Your task to perform on an android device: open app "Pandora - Music & Podcasts" Image 0: 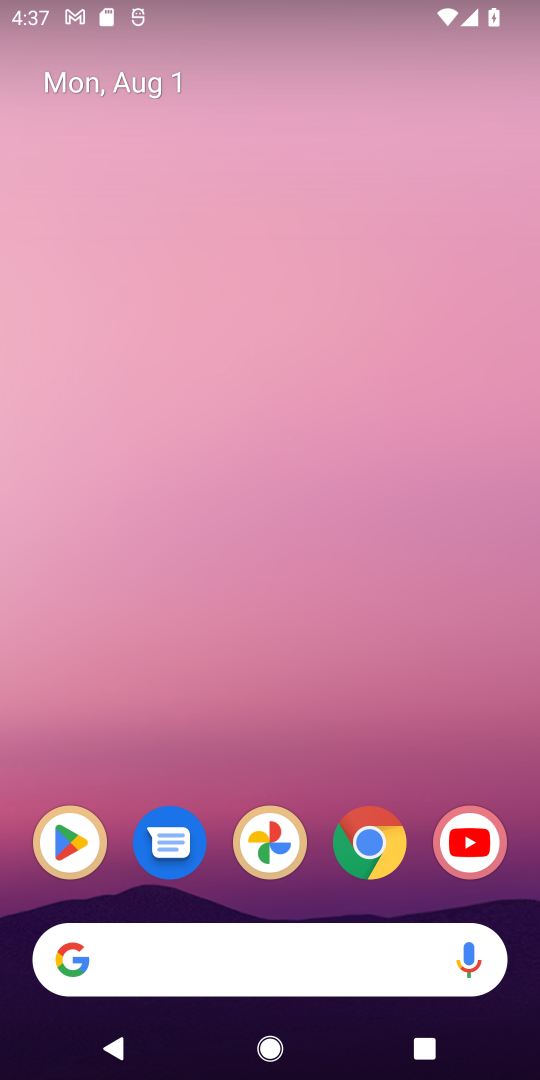
Step 0: drag from (376, 1051) to (220, 255)
Your task to perform on an android device: open app "Pandora - Music & Podcasts" Image 1: 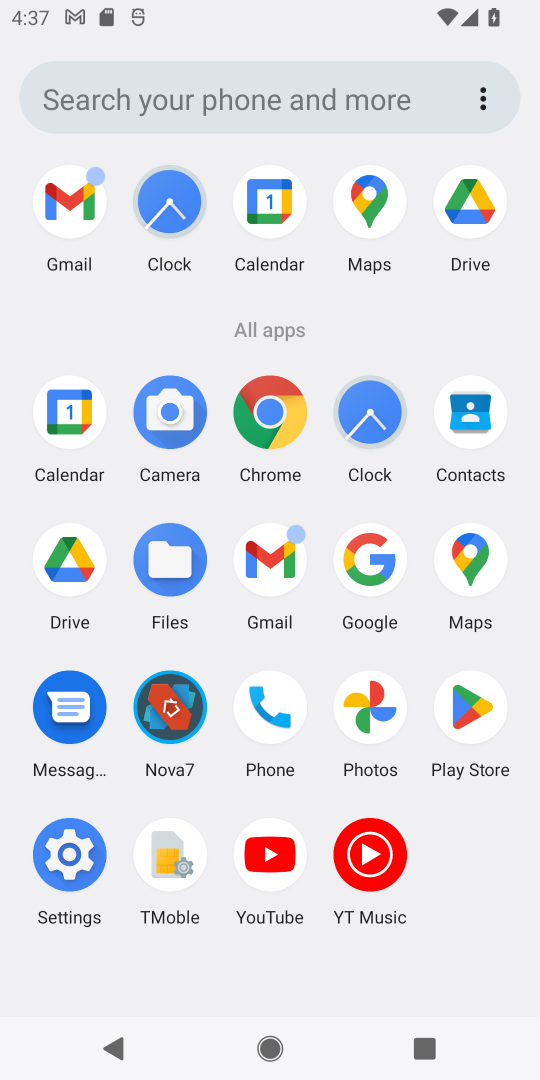
Step 1: click (462, 702)
Your task to perform on an android device: open app "Pandora - Music & Podcasts" Image 2: 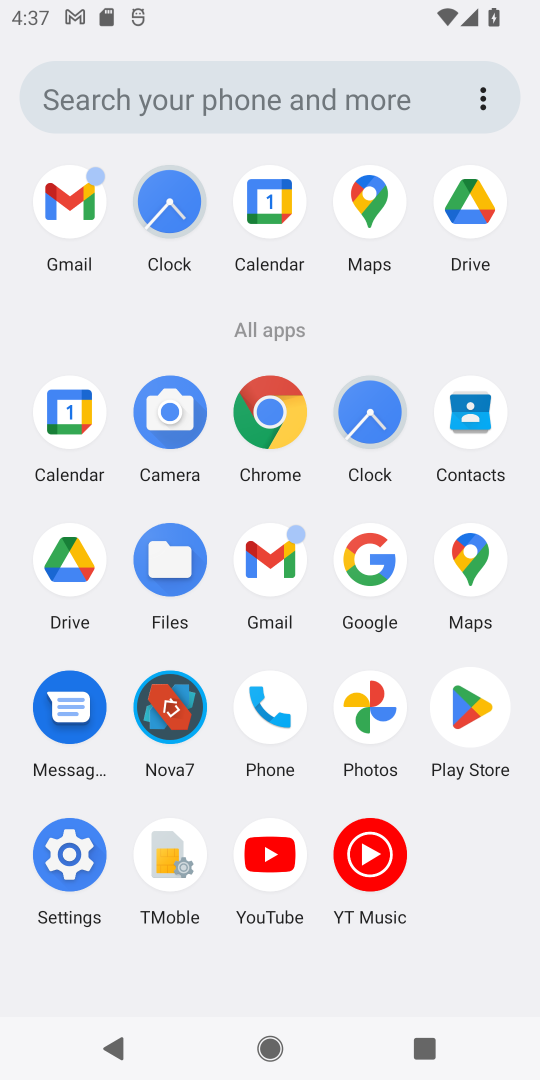
Step 2: click (460, 702)
Your task to perform on an android device: open app "Pandora - Music & Podcasts" Image 3: 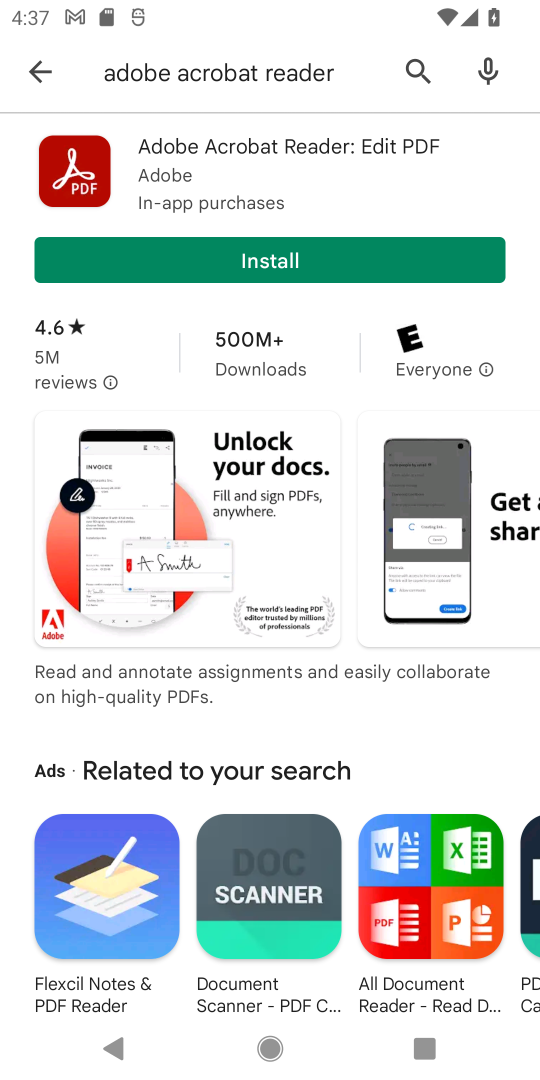
Step 3: click (28, 63)
Your task to perform on an android device: open app "Pandora - Music & Podcasts" Image 4: 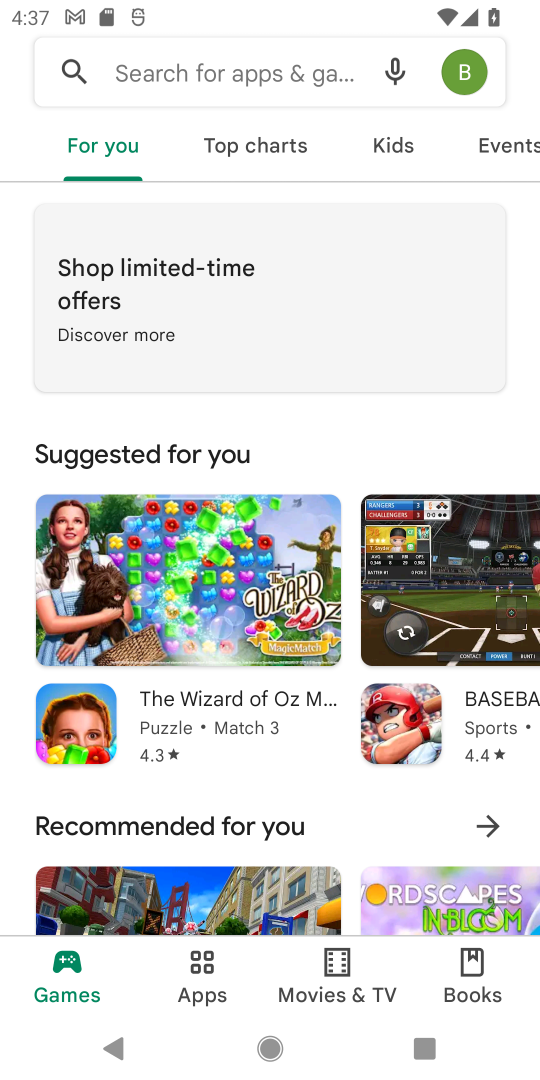
Step 4: click (143, 61)
Your task to perform on an android device: open app "Pandora - Music & Podcasts" Image 5: 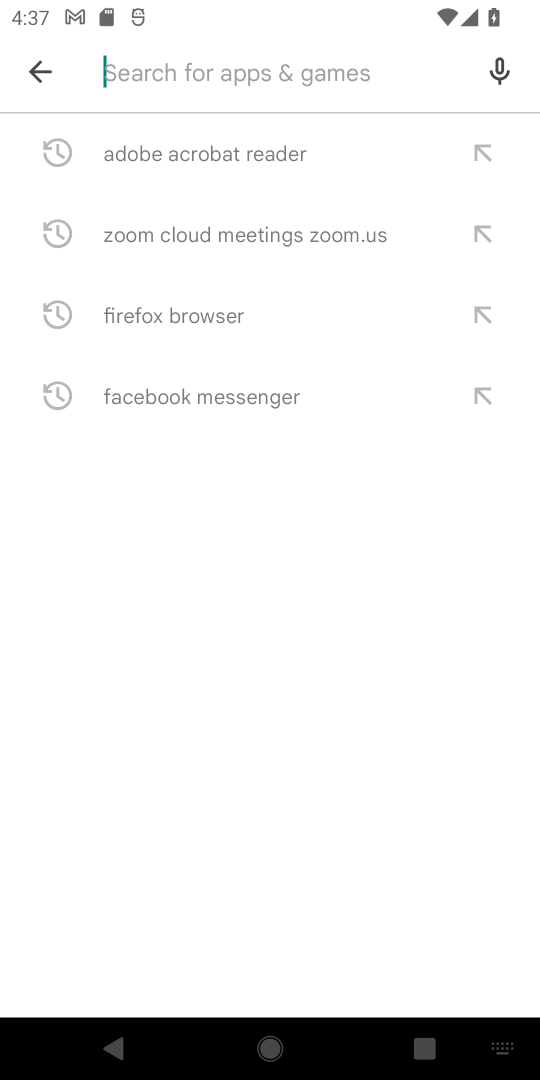
Step 5: click (143, 64)
Your task to perform on an android device: open app "Pandora - Music & Podcasts" Image 6: 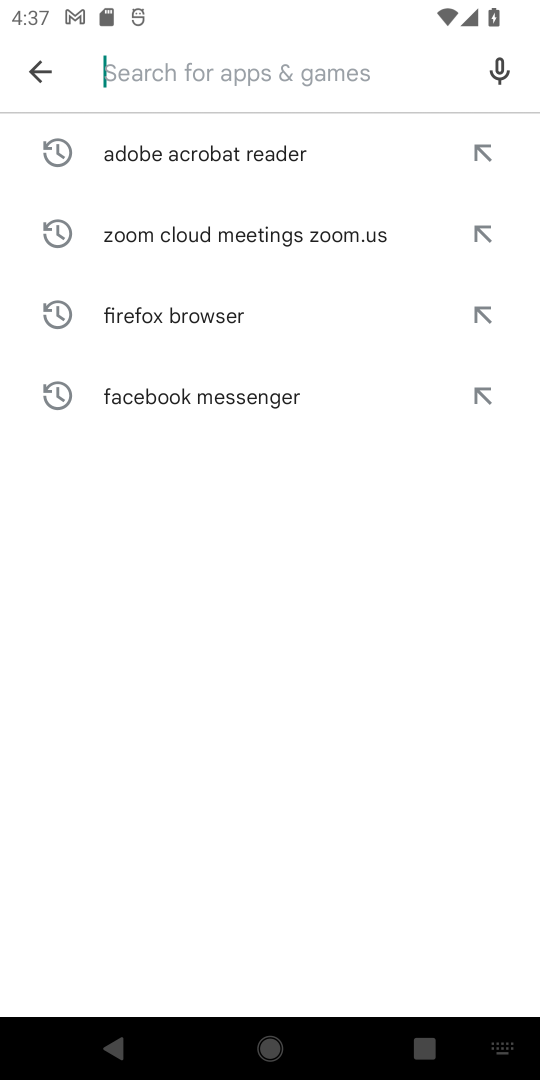
Step 6: type "Pandora- Music &Podcats"
Your task to perform on an android device: open app "Pandora - Music & Podcasts" Image 7: 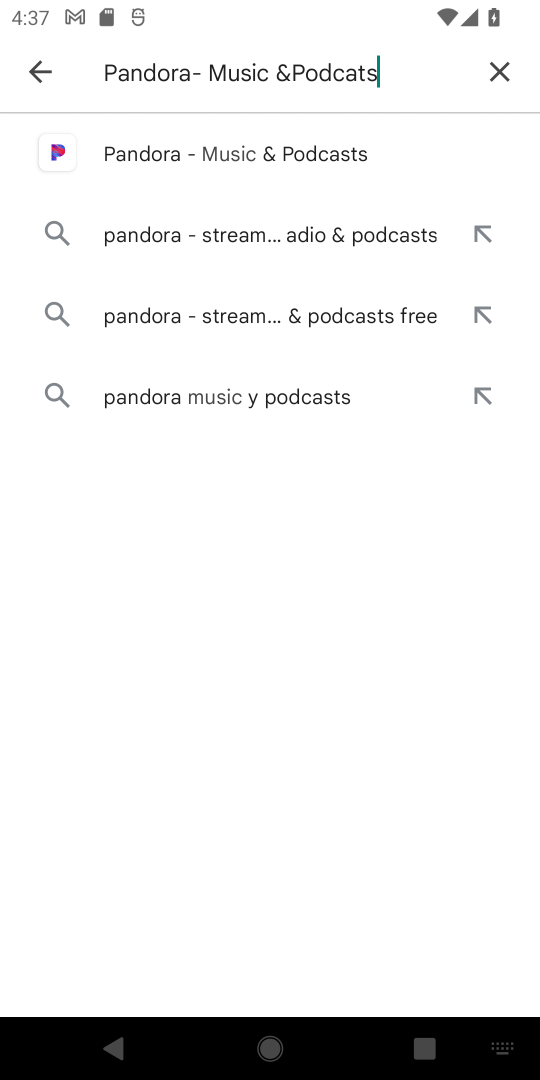
Step 7: click (270, 150)
Your task to perform on an android device: open app "Pandora - Music & Podcasts" Image 8: 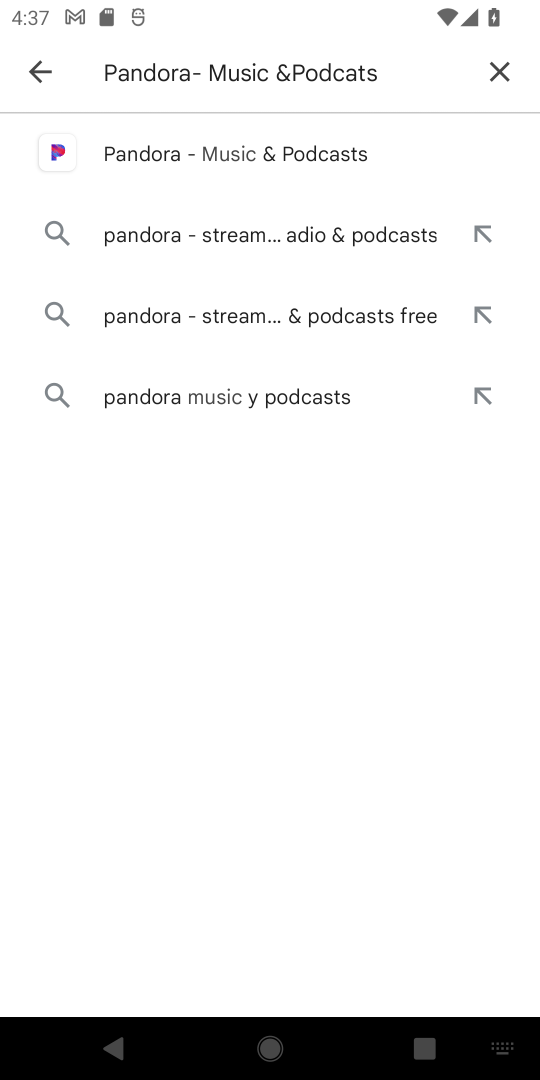
Step 8: click (282, 146)
Your task to perform on an android device: open app "Pandora - Music & Podcasts" Image 9: 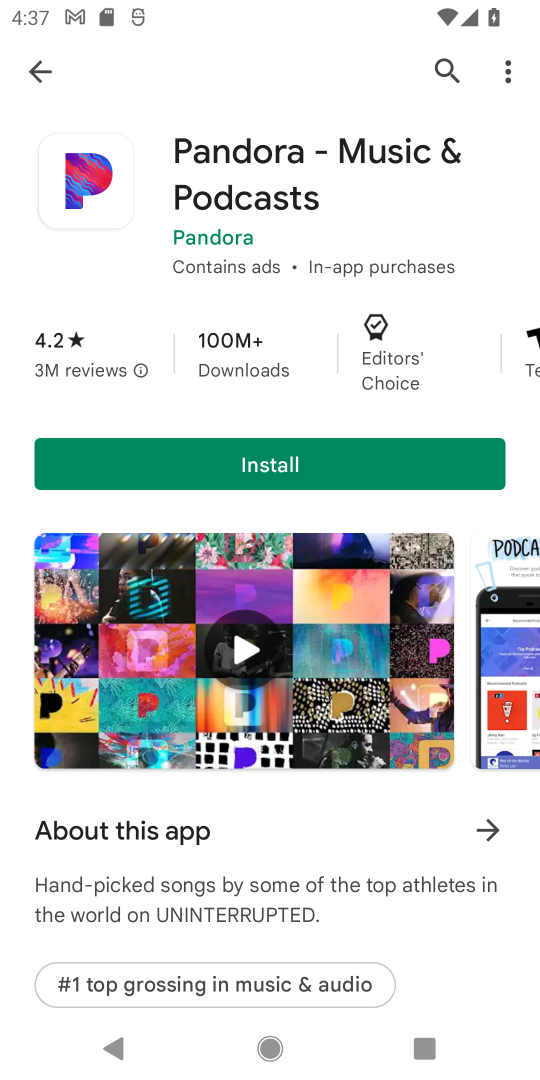
Step 9: click (271, 433)
Your task to perform on an android device: open app "Pandora - Music & Podcasts" Image 10: 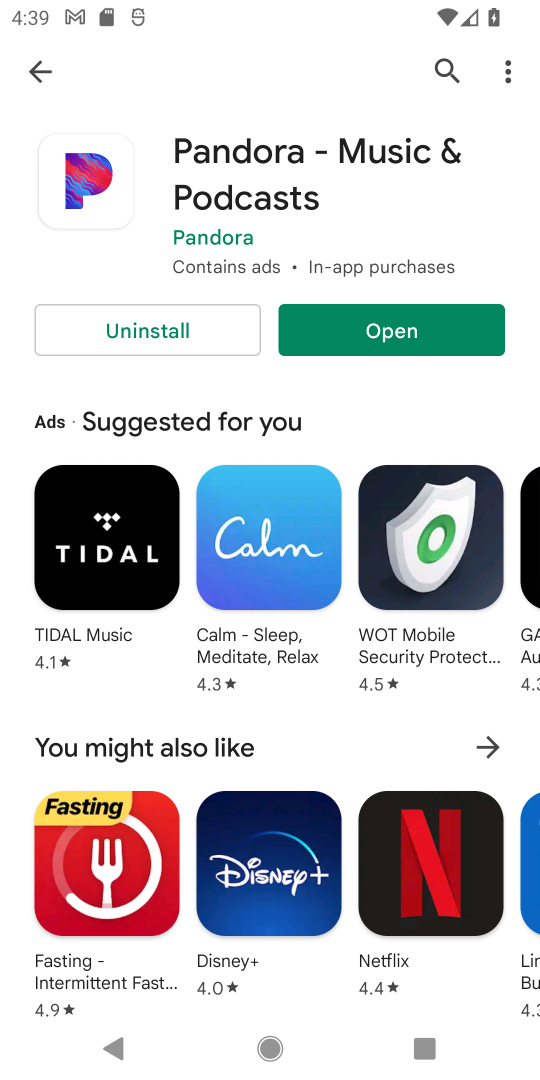
Step 10: click (405, 330)
Your task to perform on an android device: open app "Pandora - Music & Podcasts" Image 11: 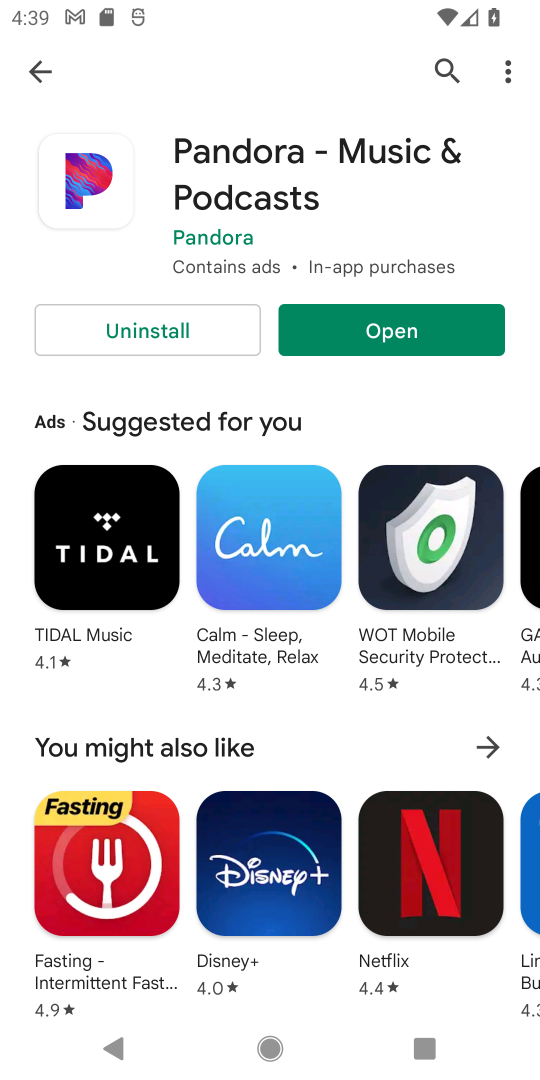
Step 11: click (403, 330)
Your task to perform on an android device: open app "Pandora - Music & Podcasts" Image 12: 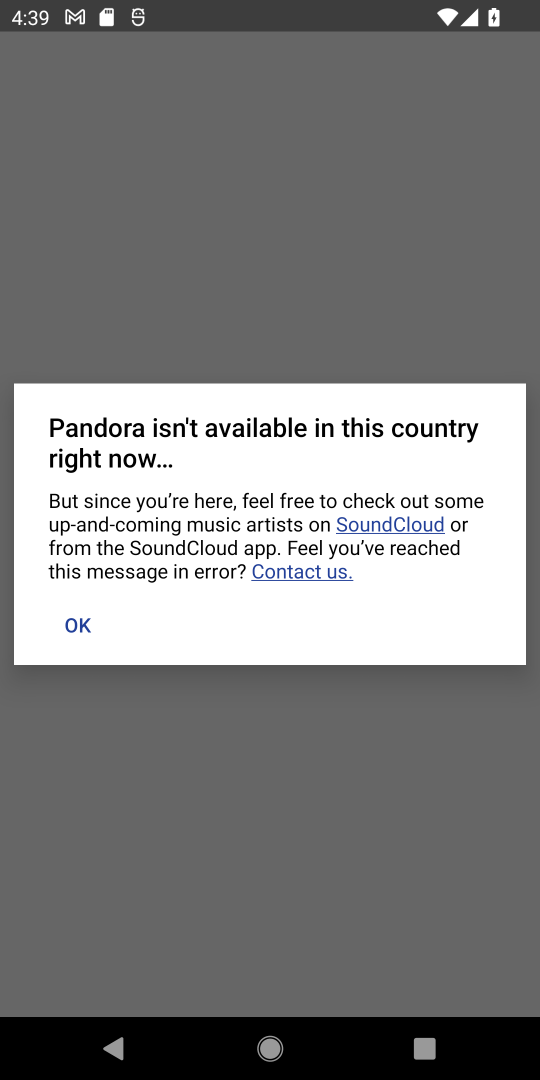
Step 12: click (74, 631)
Your task to perform on an android device: open app "Pandora - Music & Podcasts" Image 13: 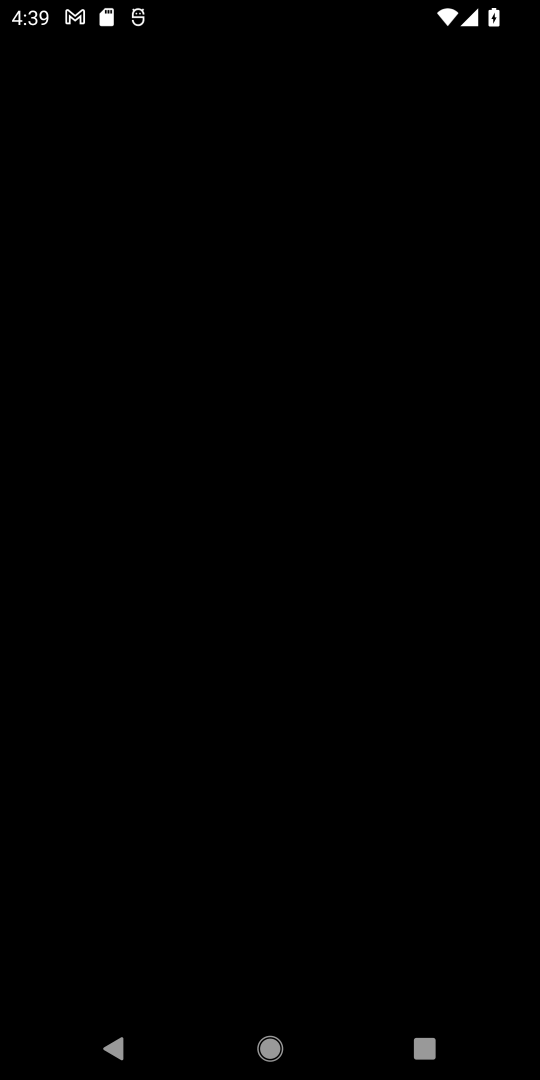
Step 13: task complete